Your task to perform on an android device: Check the weather Image 0: 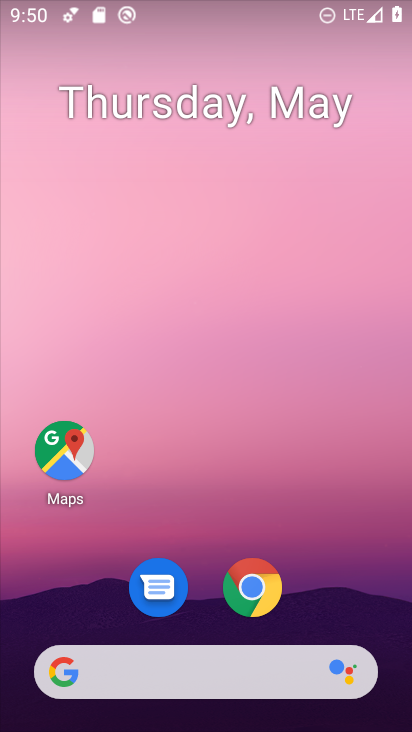
Step 0: click (126, 671)
Your task to perform on an android device: Check the weather Image 1: 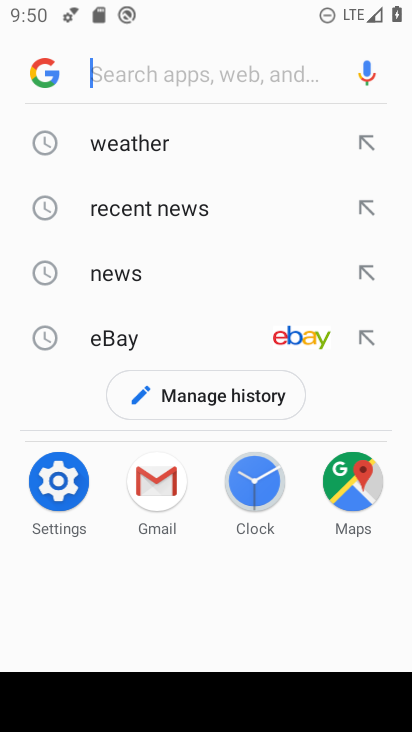
Step 1: click (118, 143)
Your task to perform on an android device: Check the weather Image 2: 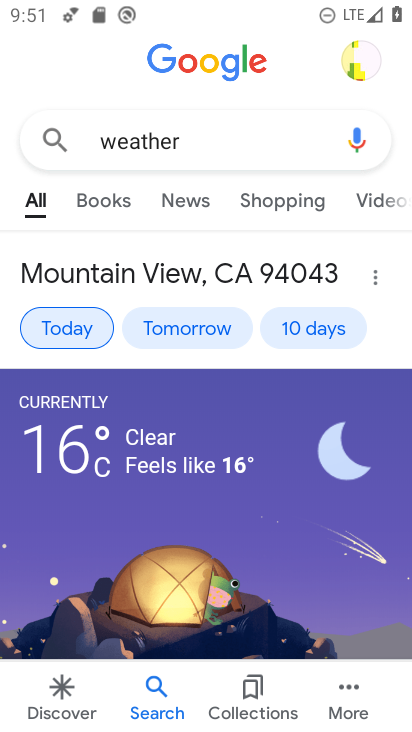
Step 2: task complete